Your task to perform on an android device: Open Google Maps Image 0: 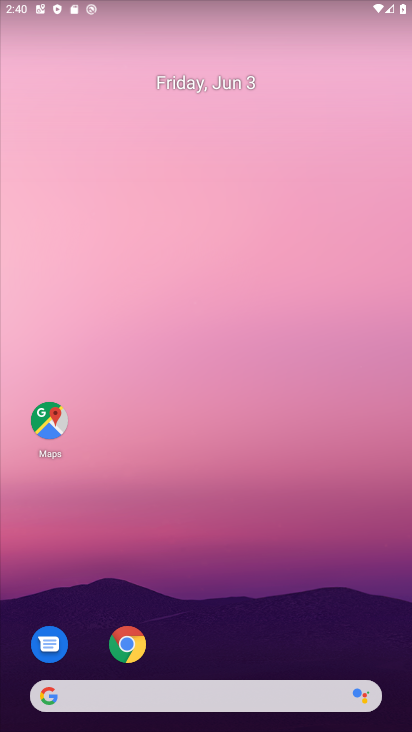
Step 0: click (49, 407)
Your task to perform on an android device: Open Google Maps Image 1: 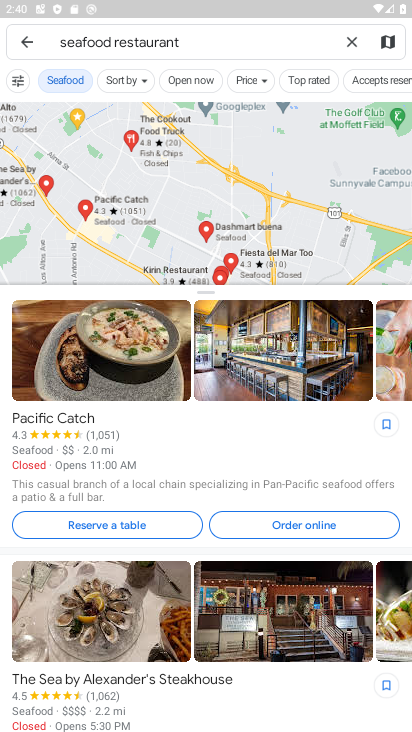
Step 1: task complete